Your task to perform on an android device: Open the phone app and click the voicemail tab. Image 0: 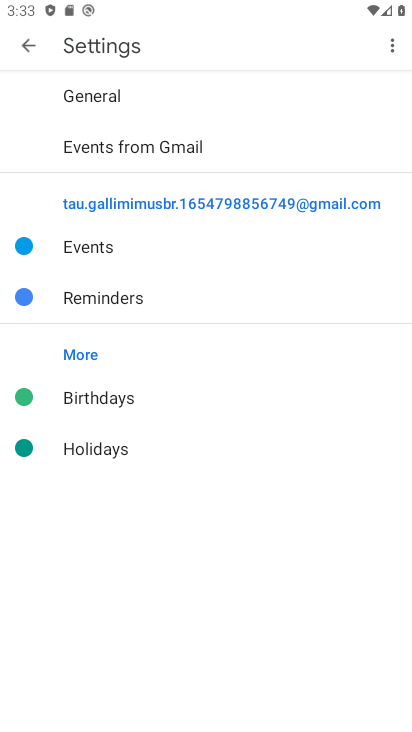
Step 0: press home button
Your task to perform on an android device: Open the phone app and click the voicemail tab. Image 1: 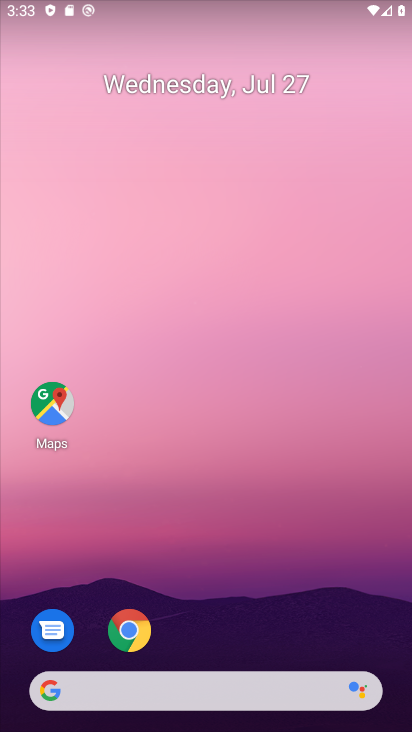
Step 1: drag from (221, 644) to (226, 181)
Your task to perform on an android device: Open the phone app and click the voicemail tab. Image 2: 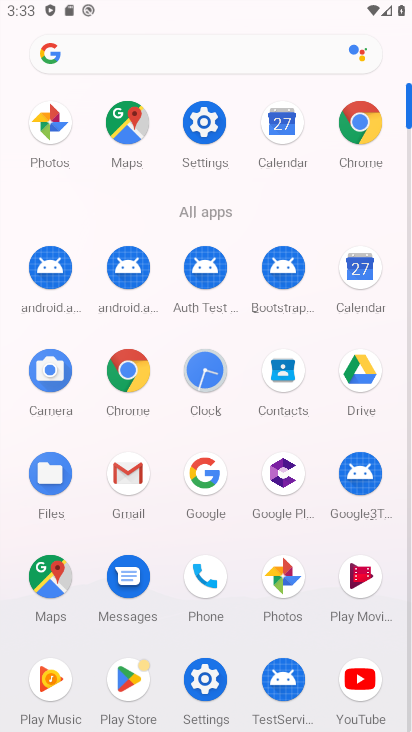
Step 2: click (202, 569)
Your task to perform on an android device: Open the phone app and click the voicemail tab. Image 3: 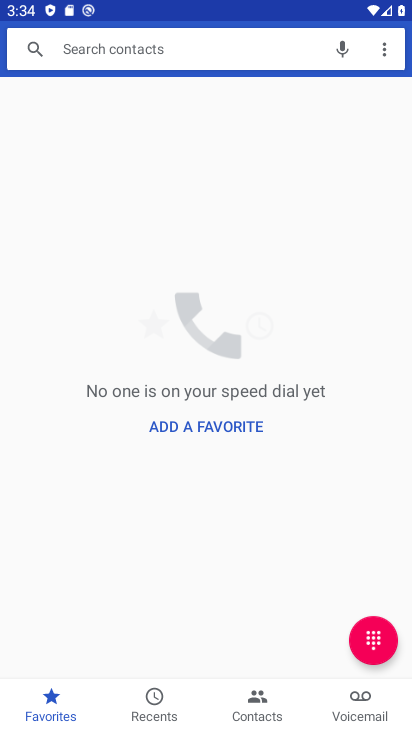
Step 3: click (349, 700)
Your task to perform on an android device: Open the phone app and click the voicemail tab. Image 4: 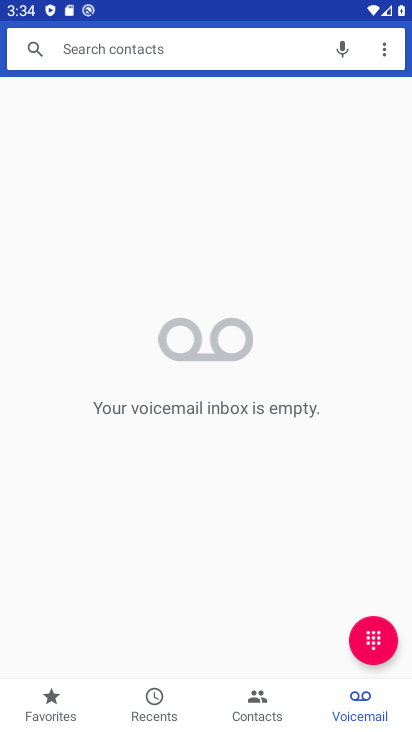
Step 4: task complete